Your task to perform on an android device: turn on translation in the chrome app Image 0: 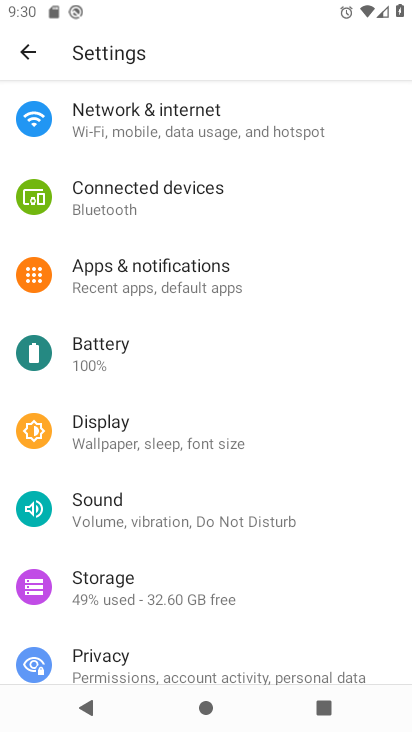
Step 0: press home button
Your task to perform on an android device: turn on translation in the chrome app Image 1: 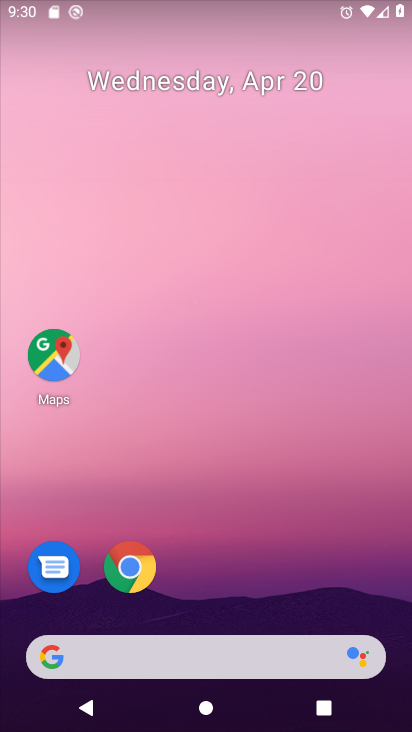
Step 1: drag from (327, 585) to (341, 149)
Your task to perform on an android device: turn on translation in the chrome app Image 2: 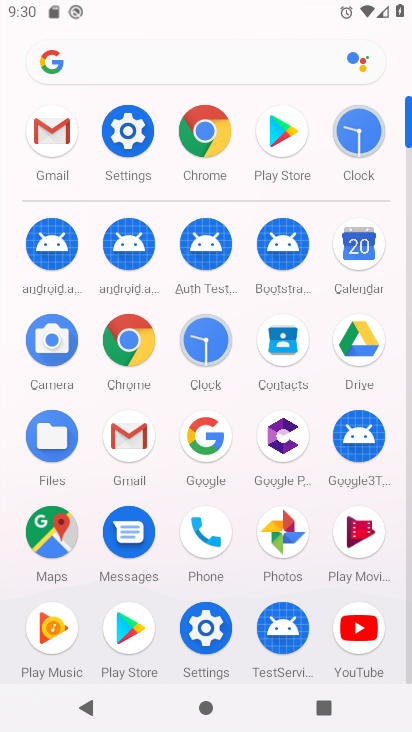
Step 2: click (133, 340)
Your task to perform on an android device: turn on translation in the chrome app Image 3: 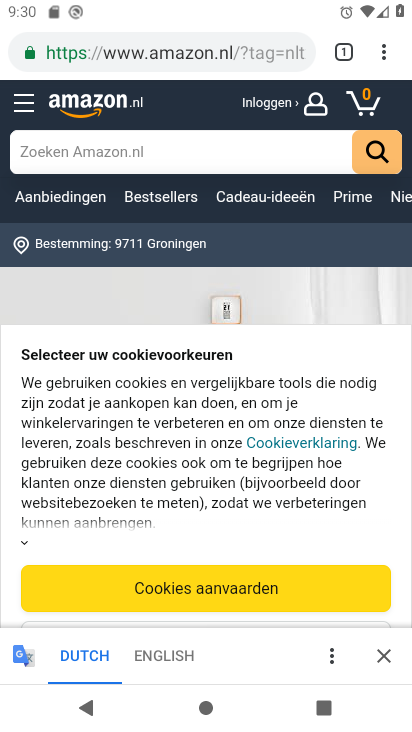
Step 3: click (384, 52)
Your task to perform on an android device: turn on translation in the chrome app Image 4: 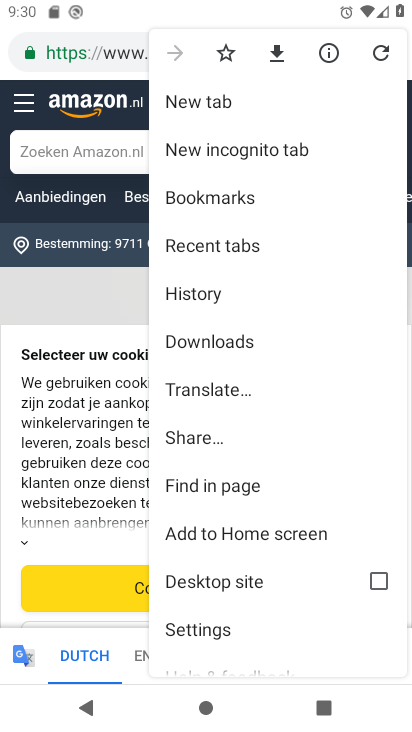
Step 4: click (219, 637)
Your task to perform on an android device: turn on translation in the chrome app Image 5: 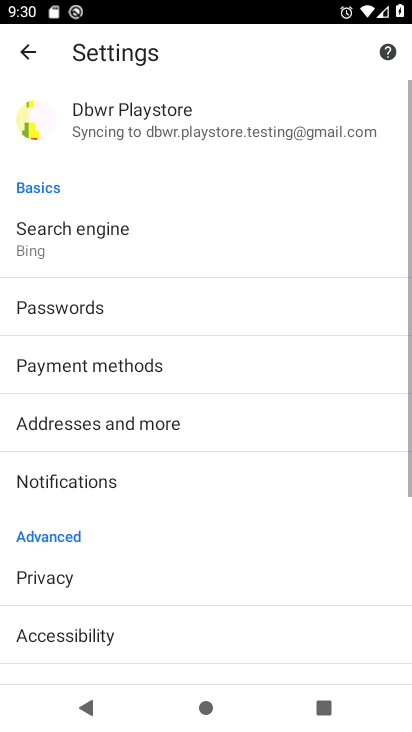
Step 5: drag from (295, 584) to (303, 427)
Your task to perform on an android device: turn on translation in the chrome app Image 6: 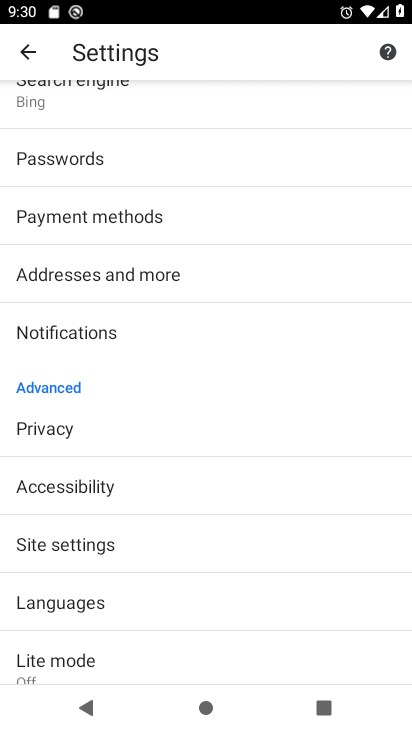
Step 6: drag from (299, 583) to (310, 379)
Your task to perform on an android device: turn on translation in the chrome app Image 7: 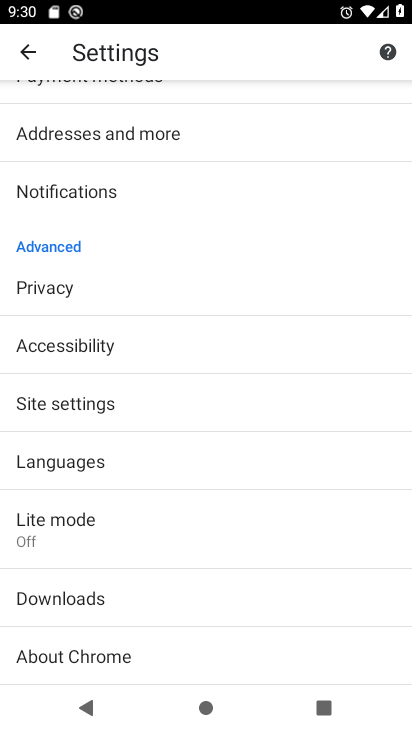
Step 7: drag from (286, 634) to (291, 408)
Your task to perform on an android device: turn on translation in the chrome app Image 8: 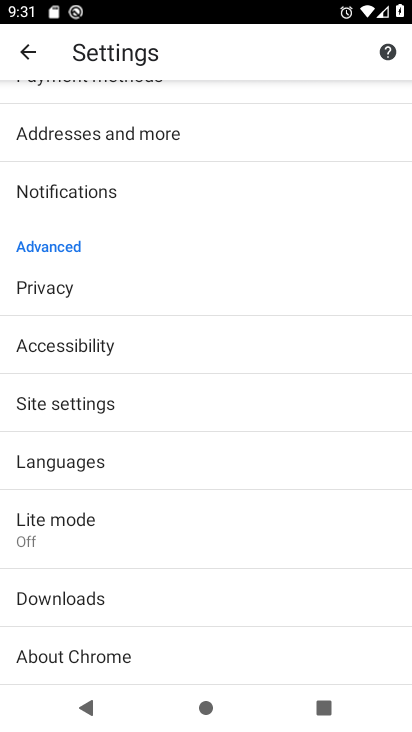
Step 8: drag from (290, 261) to (286, 399)
Your task to perform on an android device: turn on translation in the chrome app Image 9: 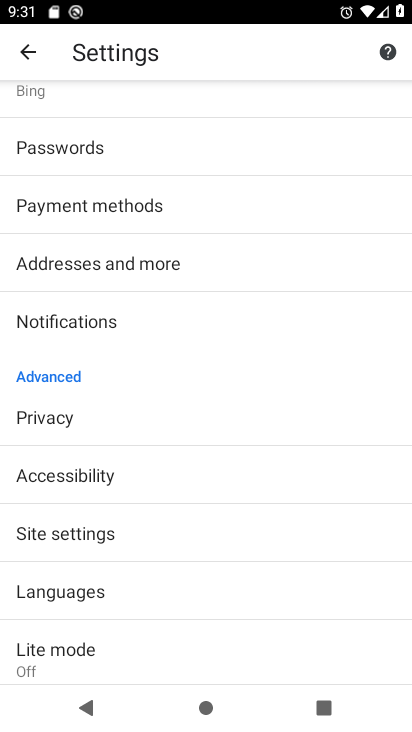
Step 9: drag from (284, 220) to (278, 415)
Your task to perform on an android device: turn on translation in the chrome app Image 10: 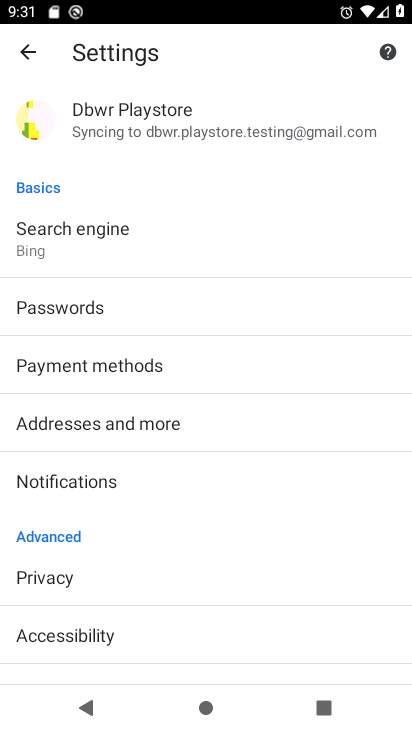
Step 10: drag from (277, 542) to (311, 286)
Your task to perform on an android device: turn on translation in the chrome app Image 11: 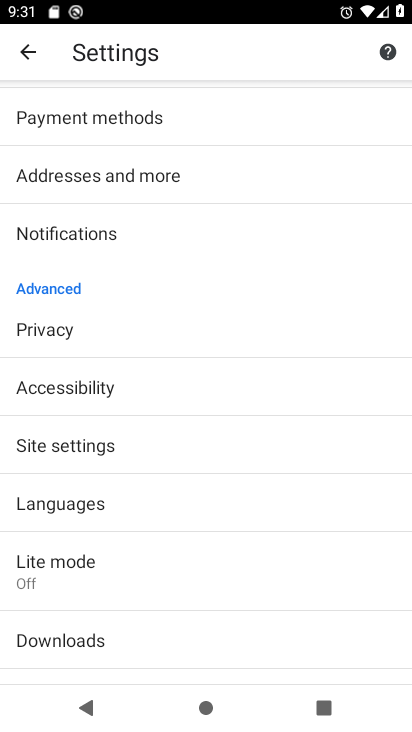
Step 11: click (280, 500)
Your task to perform on an android device: turn on translation in the chrome app Image 12: 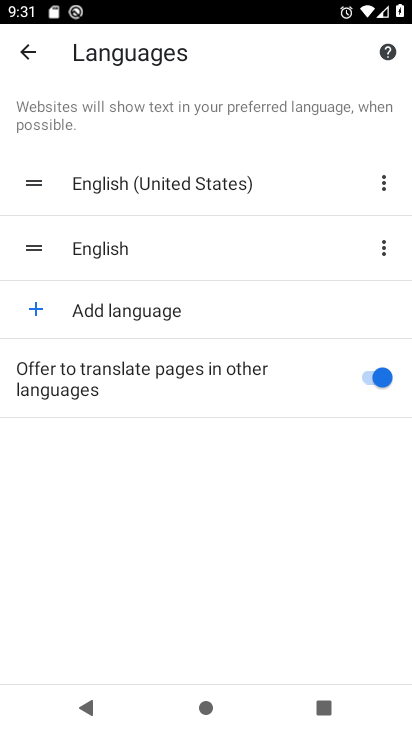
Step 12: task complete